Your task to perform on an android device: change notification settings in the gmail app Image 0: 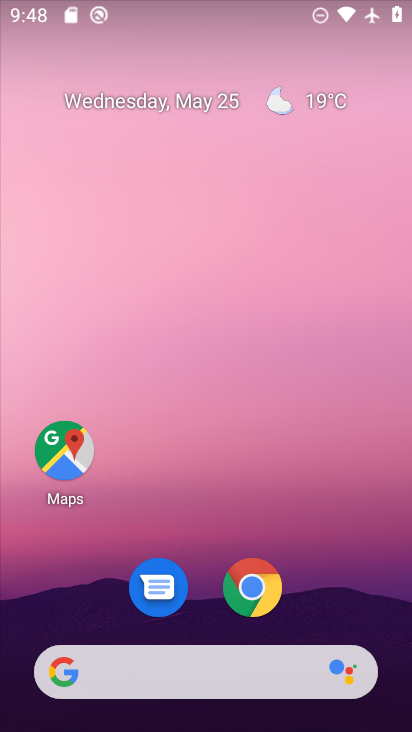
Step 0: drag from (398, 635) to (292, 99)
Your task to perform on an android device: change notification settings in the gmail app Image 1: 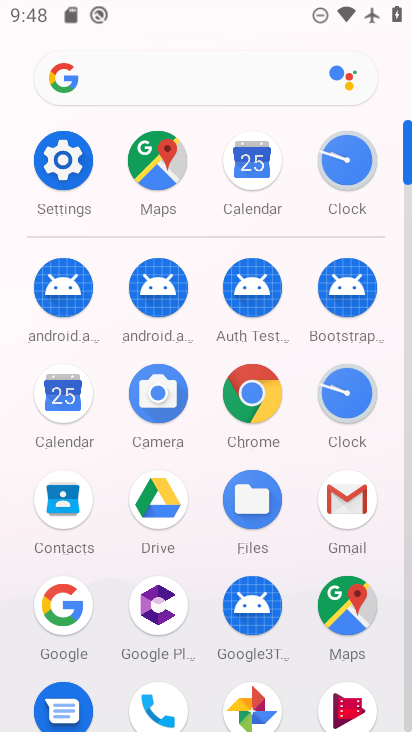
Step 1: click (406, 719)
Your task to perform on an android device: change notification settings in the gmail app Image 2: 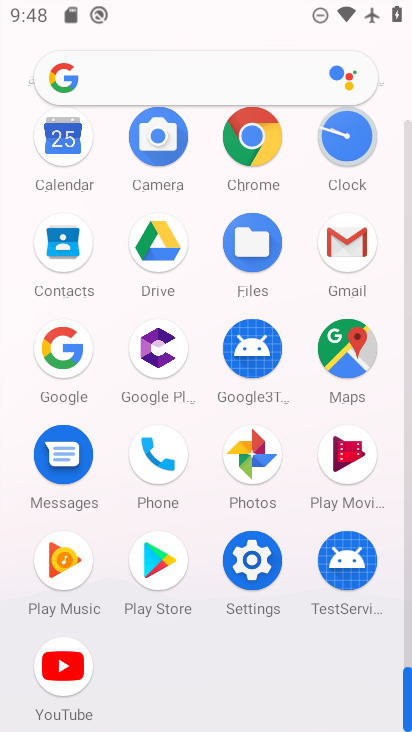
Step 2: click (347, 237)
Your task to perform on an android device: change notification settings in the gmail app Image 3: 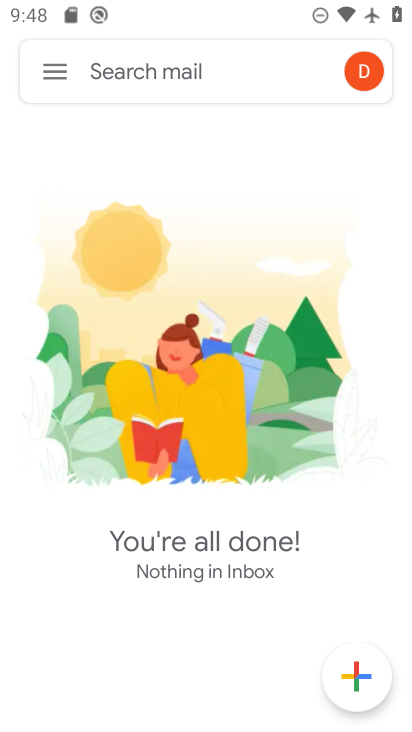
Step 3: click (53, 71)
Your task to perform on an android device: change notification settings in the gmail app Image 4: 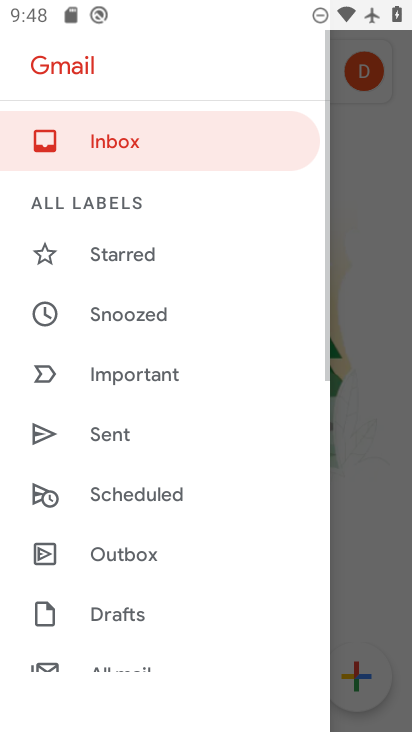
Step 4: drag from (224, 586) to (213, 70)
Your task to perform on an android device: change notification settings in the gmail app Image 5: 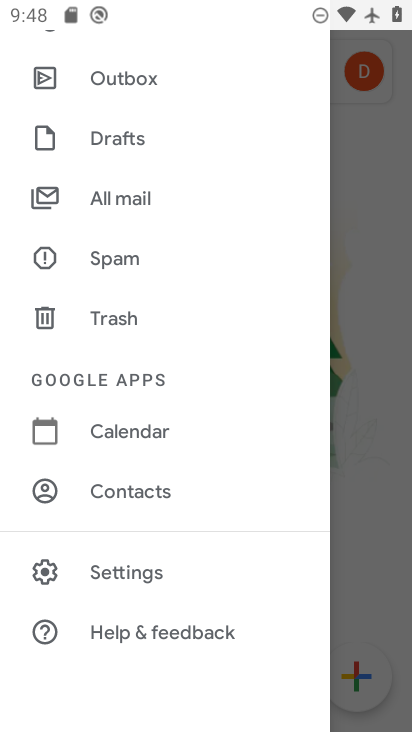
Step 5: click (120, 559)
Your task to perform on an android device: change notification settings in the gmail app Image 6: 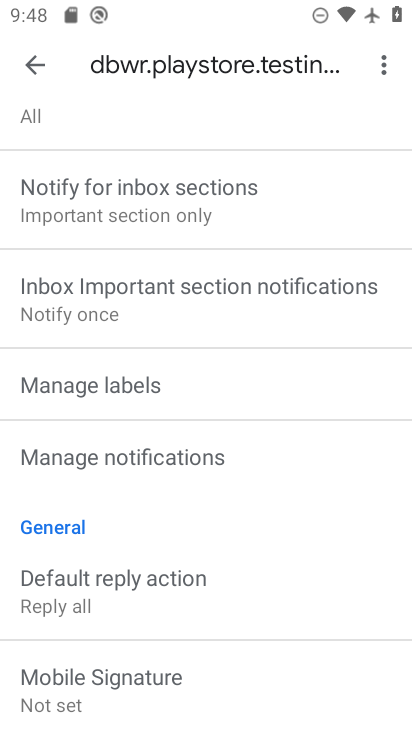
Step 6: click (130, 454)
Your task to perform on an android device: change notification settings in the gmail app Image 7: 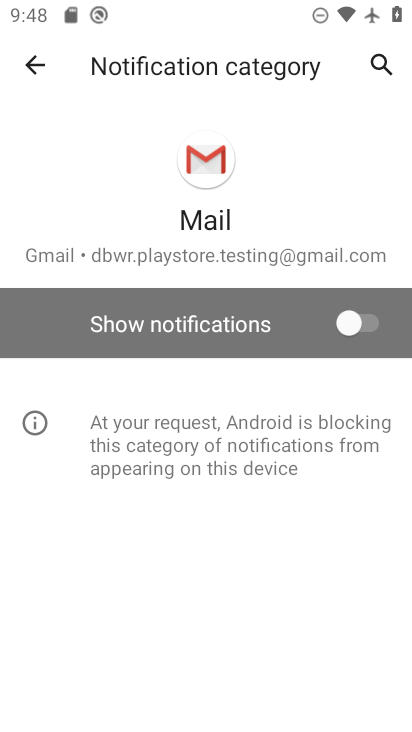
Step 7: click (375, 323)
Your task to perform on an android device: change notification settings in the gmail app Image 8: 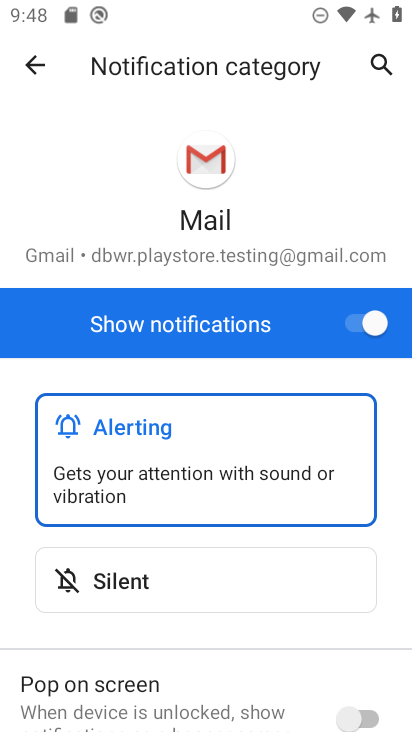
Step 8: task complete